Your task to perform on an android device: Check the news Image 0: 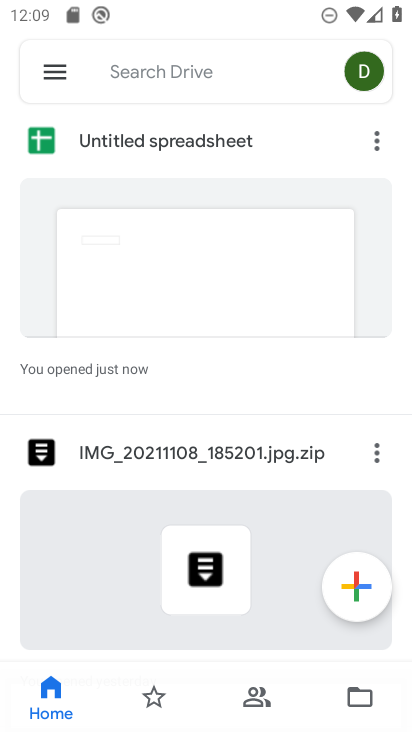
Step 0: press home button
Your task to perform on an android device: Check the news Image 1: 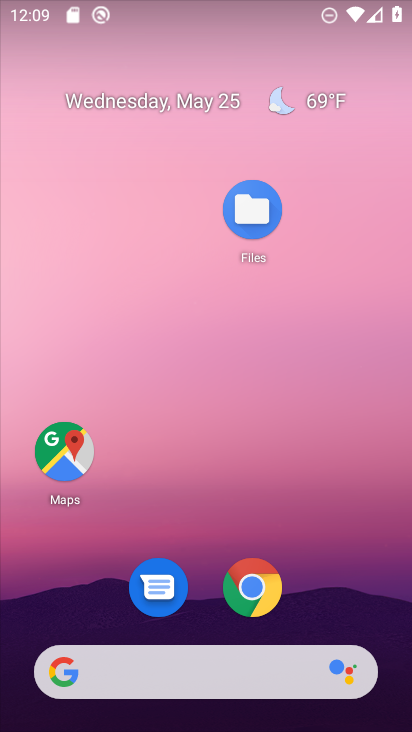
Step 1: click (261, 593)
Your task to perform on an android device: Check the news Image 2: 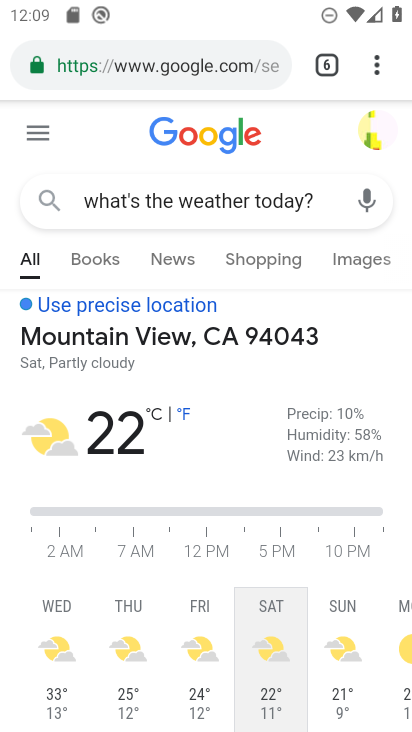
Step 2: click (327, 67)
Your task to perform on an android device: Check the news Image 3: 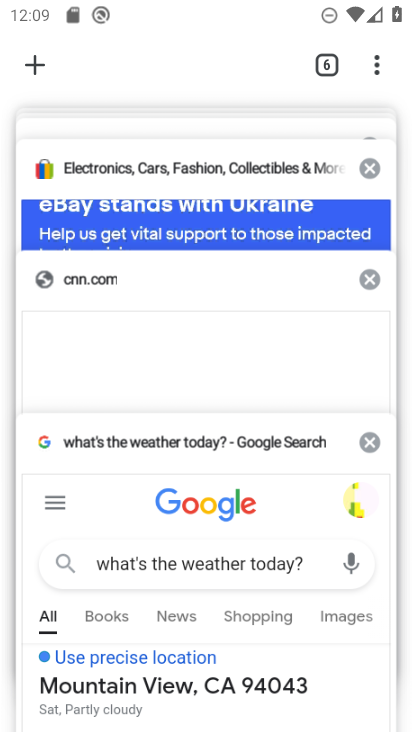
Step 3: drag from (164, 170) to (159, 401)
Your task to perform on an android device: Check the news Image 4: 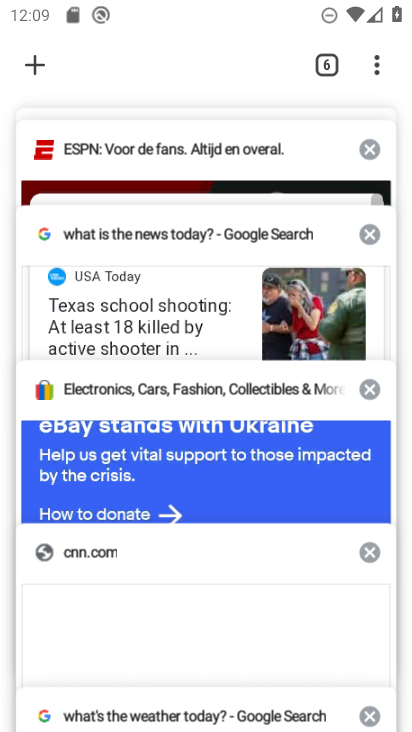
Step 4: click (153, 338)
Your task to perform on an android device: Check the news Image 5: 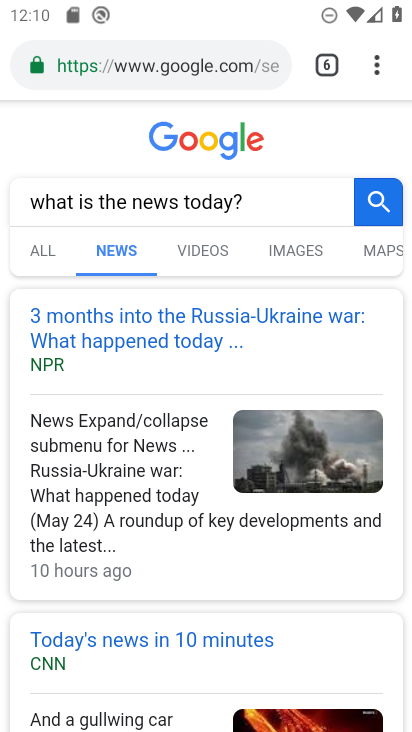
Step 5: task complete